Your task to perform on an android device: Open display settings Image 0: 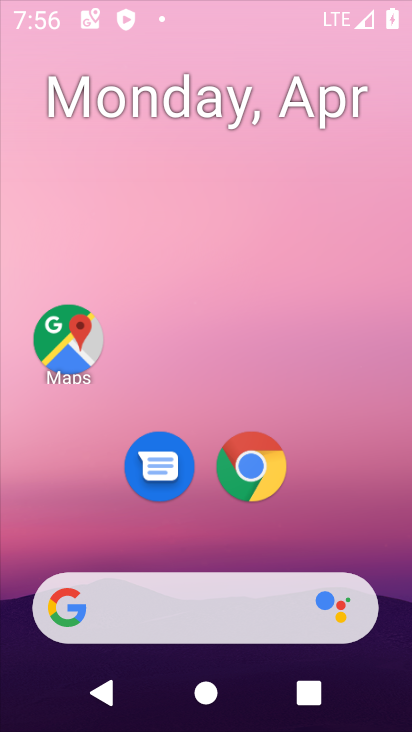
Step 0: click (272, 149)
Your task to perform on an android device: Open display settings Image 1: 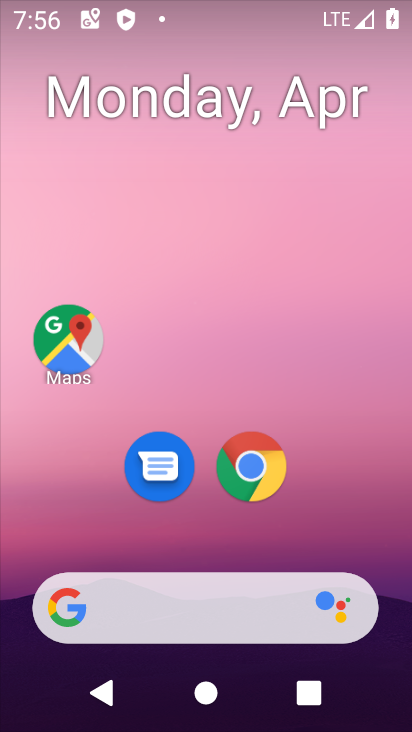
Step 1: drag from (217, 522) to (265, 99)
Your task to perform on an android device: Open display settings Image 2: 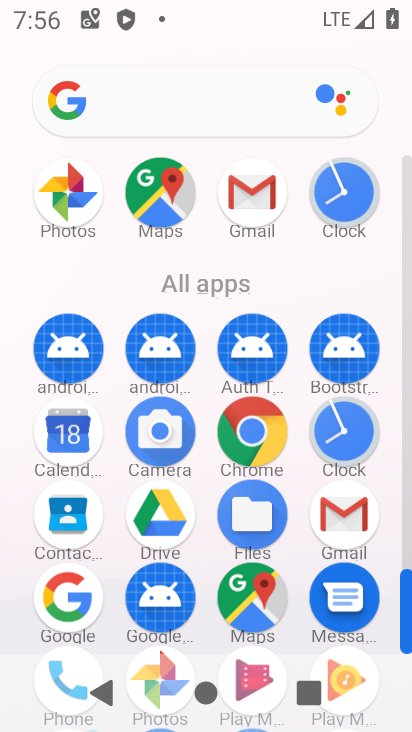
Step 2: drag from (205, 630) to (208, 210)
Your task to perform on an android device: Open display settings Image 3: 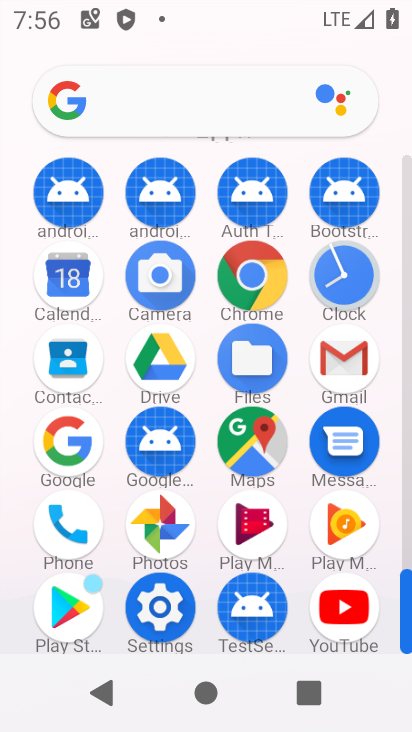
Step 3: click (161, 614)
Your task to perform on an android device: Open display settings Image 4: 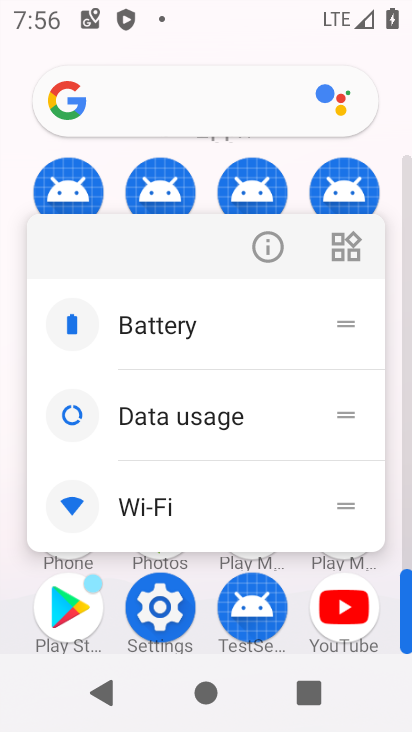
Step 4: click (267, 245)
Your task to perform on an android device: Open display settings Image 5: 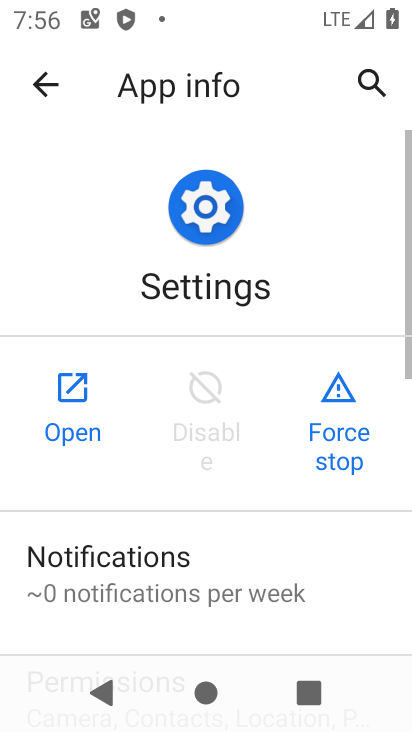
Step 5: click (46, 405)
Your task to perform on an android device: Open display settings Image 6: 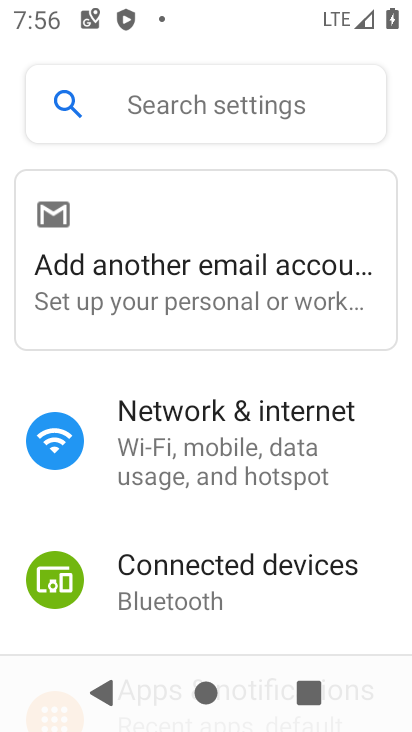
Step 6: drag from (258, 591) to (291, 250)
Your task to perform on an android device: Open display settings Image 7: 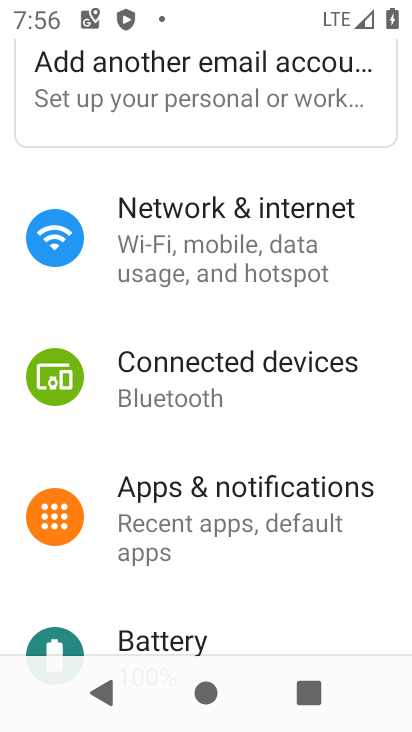
Step 7: drag from (232, 498) to (232, 319)
Your task to perform on an android device: Open display settings Image 8: 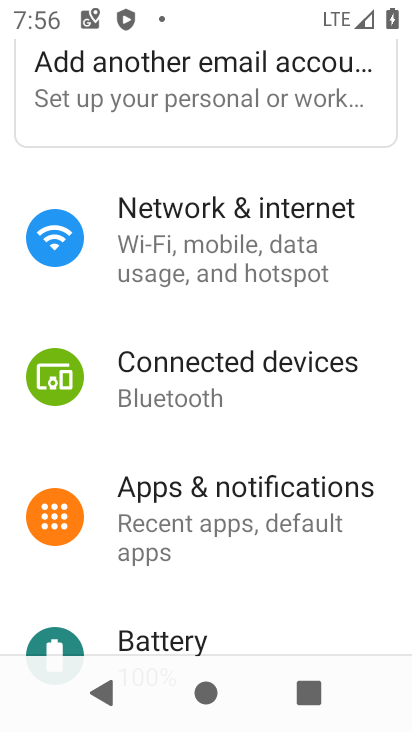
Step 8: drag from (211, 581) to (242, 87)
Your task to perform on an android device: Open display settings Image 9: 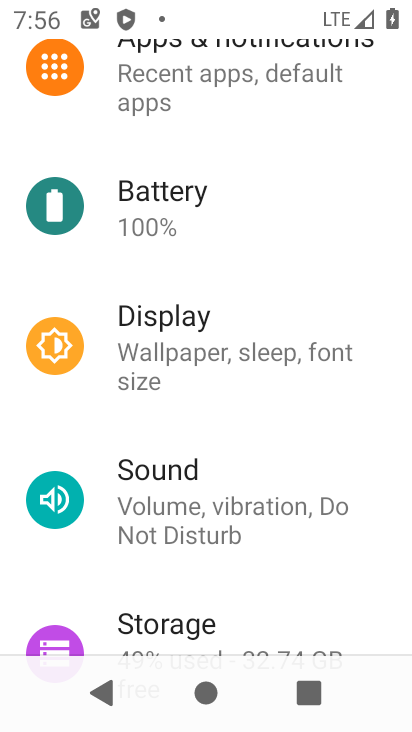
Step 9: click (193, 324)
Your task to perform on an android device: Open display settings Image 10: 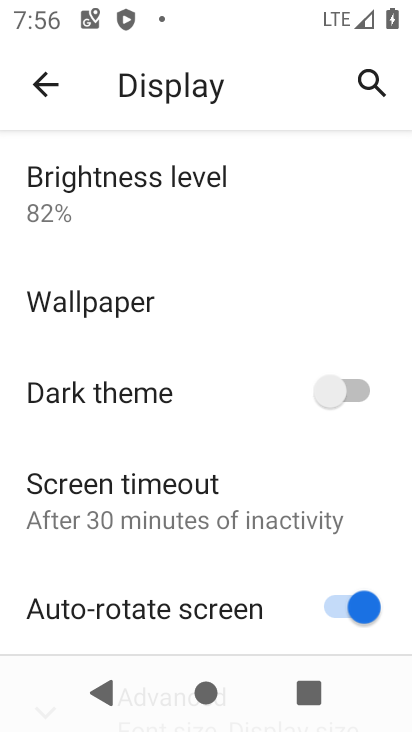
Step 10: task complete